Your task to perform on an android device: Show me the alarms in the clock app Image 0: 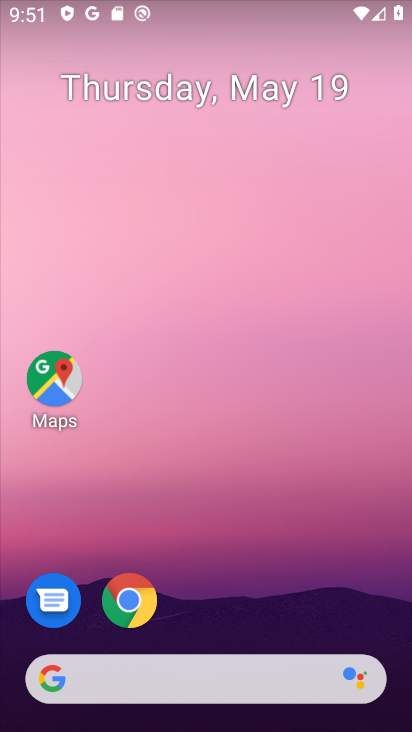
Step 0: drag from (227, 508) to (203, 38)
Your task to perform on an android device: Show me the alarms in the clock app Image 1: 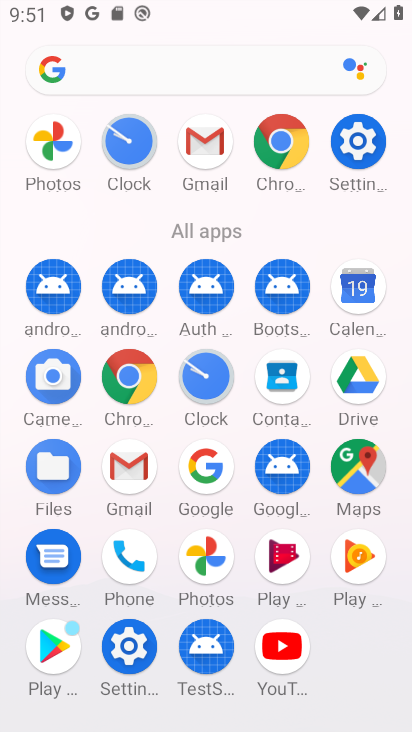
Step 1: click (207, 370)
Your task to perform on an android device: Show me the alarms in the clock app Image 2: 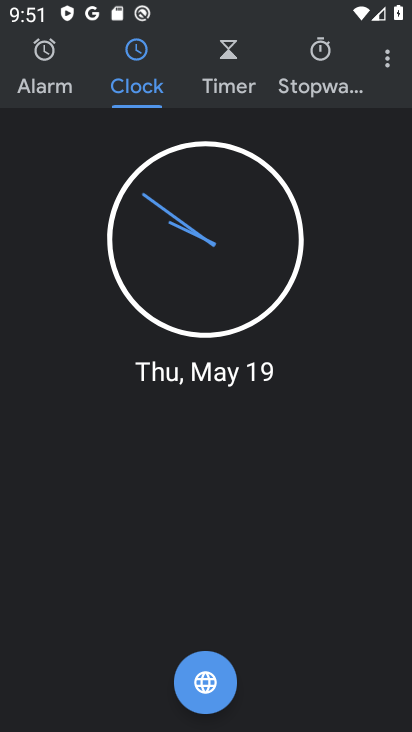
Step 2: drag from (386, 59) to (332, 109)
Your task to perform on an android device: Show me the alarms in the clock app Image 3: 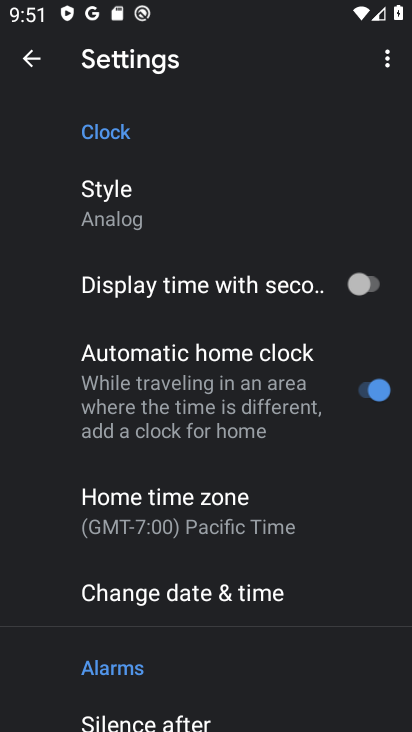
Step 3: drag from (215, 578) to (219, 202)
Your task to perform on an android device: Show me the alarms in the clock app Image 4: 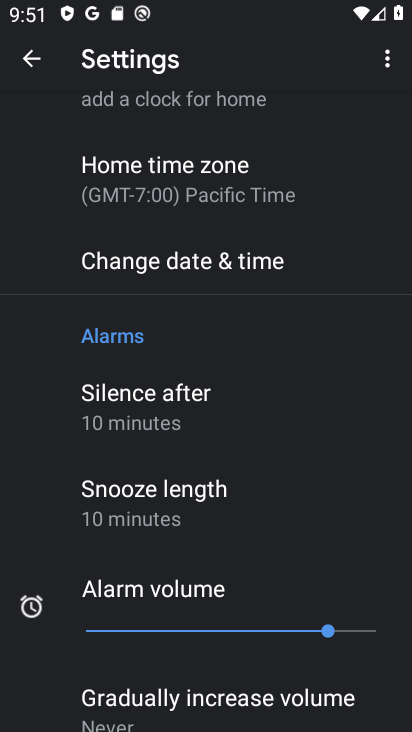
Step 4: drag from (239, 534) to (242, 129)
Your task to perform on an android device: Show me the alarms in the clock app Image 5: 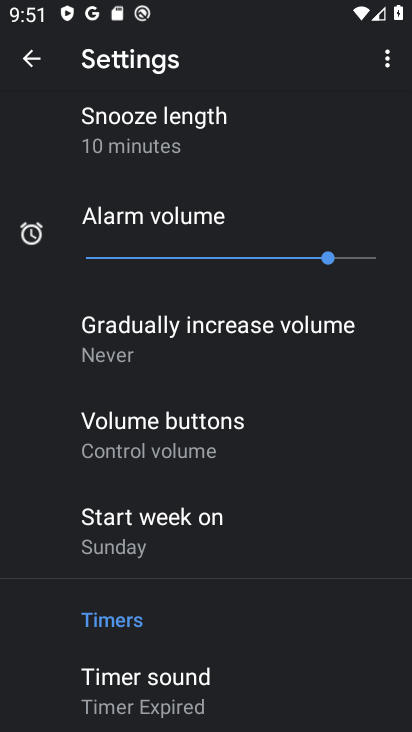
Step 5: drag from (239, 522) to (254, 120)
Your task to perform on an android device: Show me the alarms in the clock app Image 6: 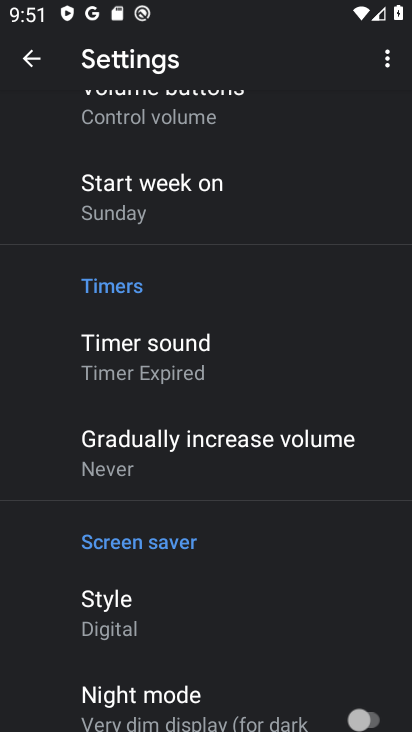
Step 6: drag from (205, 623) to (214, 177)
Your task to perform on an android device: Show me the alarms in the clock app Image 7: 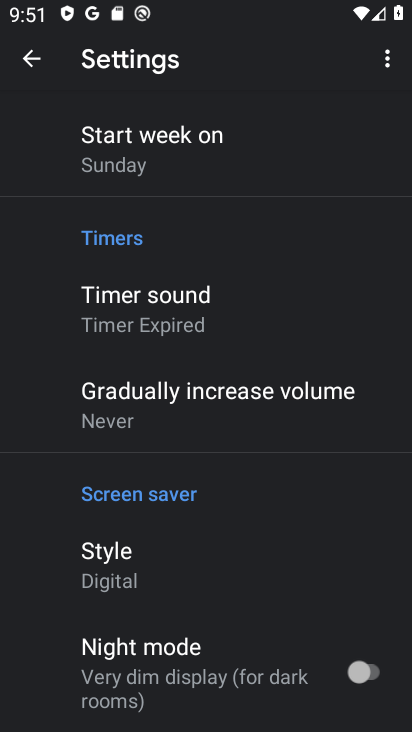
Step 7: drag from (229, 96) to (238, 514)
Your task to perform on an android device: Show me the alarms in the clock app Image 8: 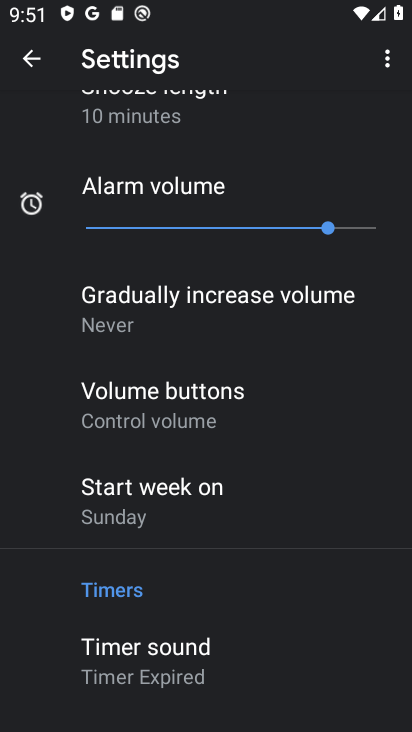
Step 8: drag from (213, 195) to (208, 548)
Your task to perform on an android device: Show me the alarms in the clock app Image 9: 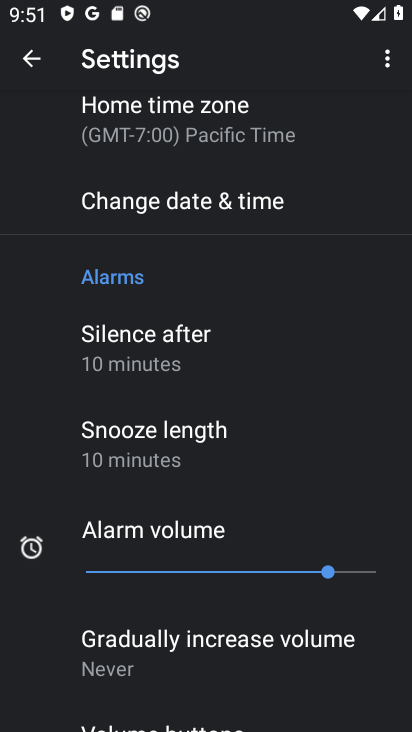
Step 9: drag from (247, 152) to (259, 513)
Your task to perform on an android device: Show me the alarms in the clock app Image 10: 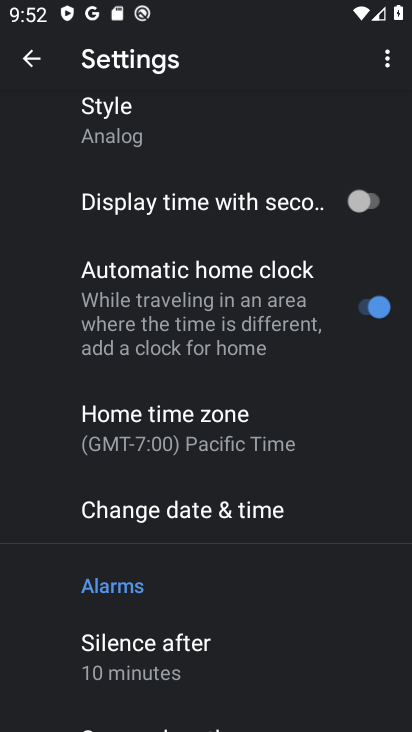
Step 10: click (43, 60)
Your task to perform on an android device: Show me the alarms in the clock app Image 11: 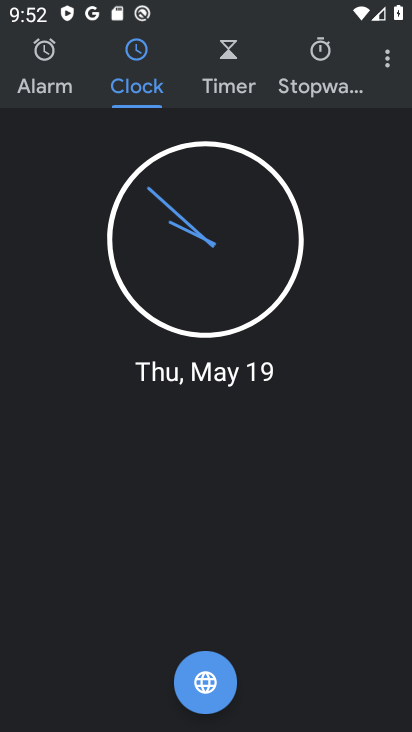
Step 11: click (44, 65)
Your task to perform on an android device: Show me the alarms in the clock app Image 12: 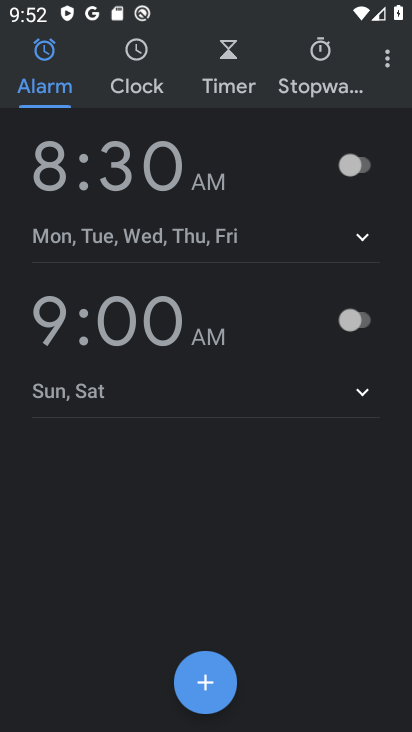
Step 12: task complete